Your task to perform on an android device: What's the weather today? Image 0: 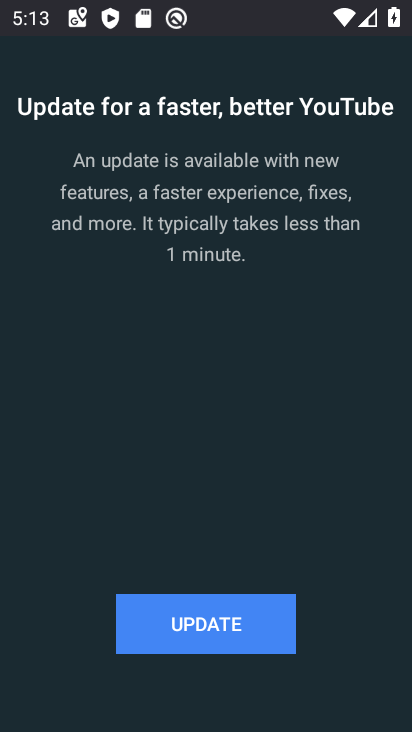
Step 0: press home button
Your task to perform on an android device: What's the weather today? Image 1: 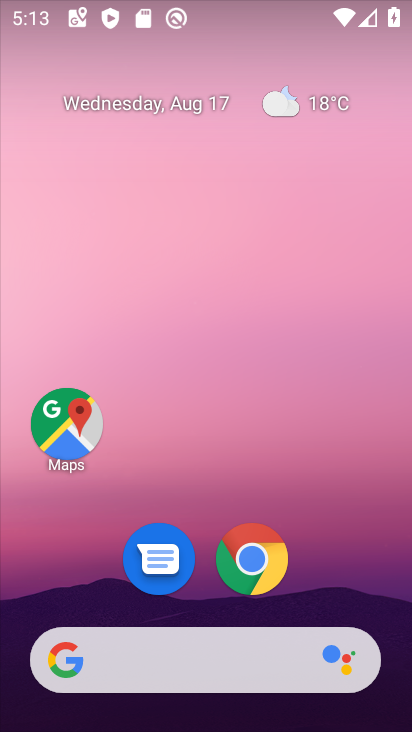
Step 1: click (312, 100)
Your task to perform on an android device: What's the weather today? Image 2: 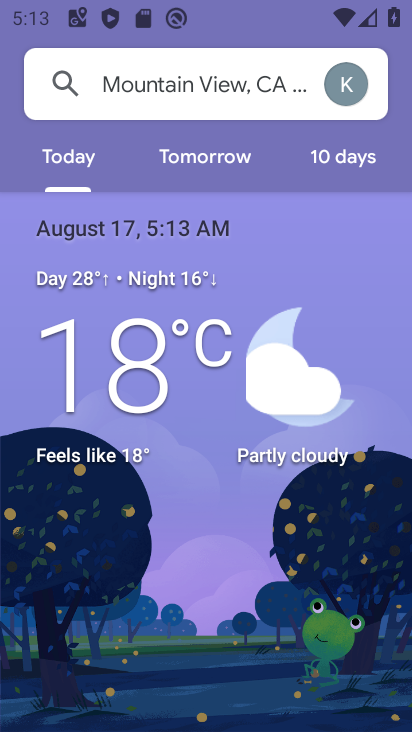
Step 2: task complete